Your task to perform on an android device: Open accessibility settings Image 0: 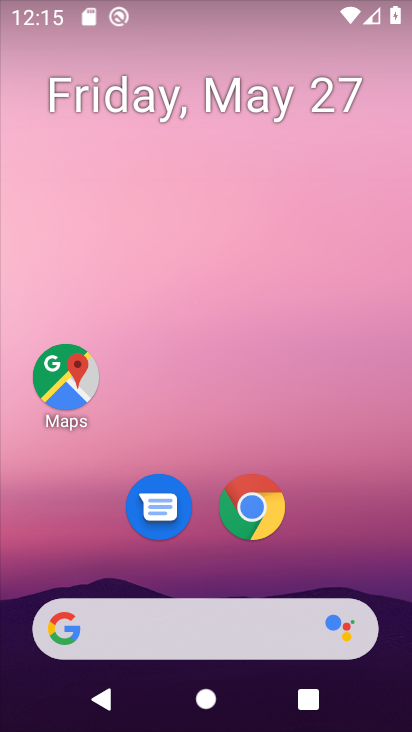
Step 0: drag from (97, 595) to (237, 78)
Your task to perform on an android device: Open accessibility settings Image 1: 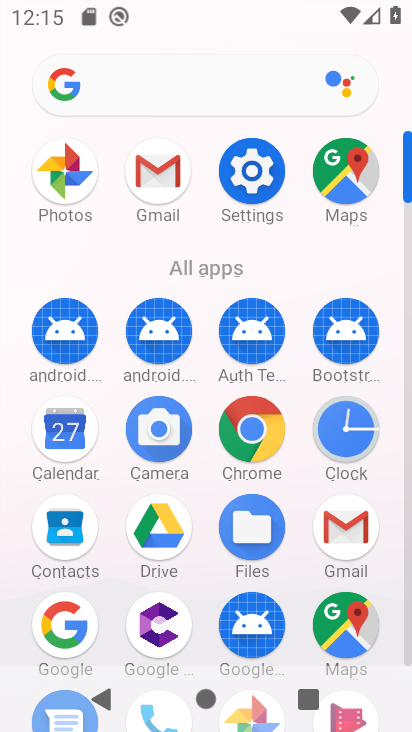
Step 1: drag from (181, 573) to (291, 185)
Your task to perform on an android device: Open accessibility settings Image 2: 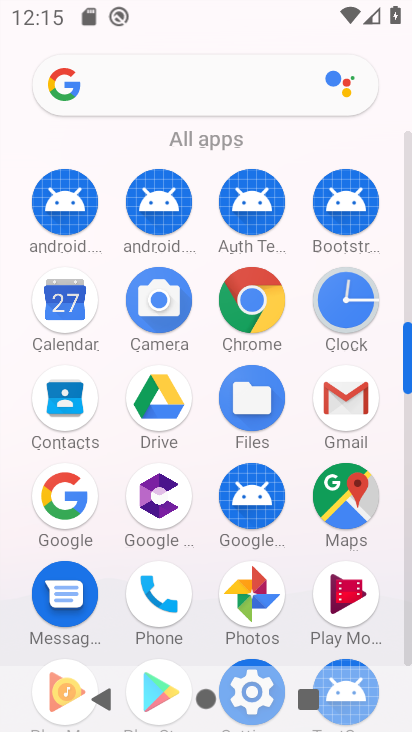
Step 2: drag from (219, 631) to (278, 380)
Your task to perform on an android device: Open accessibility settings Image 3: 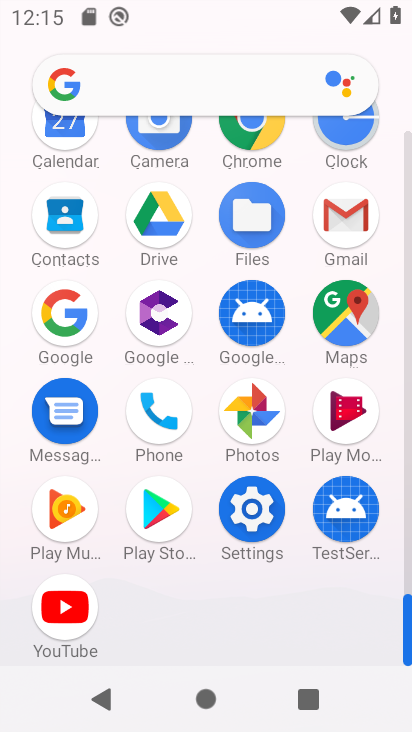
Step 3: click (254, 520)
Your task to perform on an android device: Open accessibility settings Image 4: 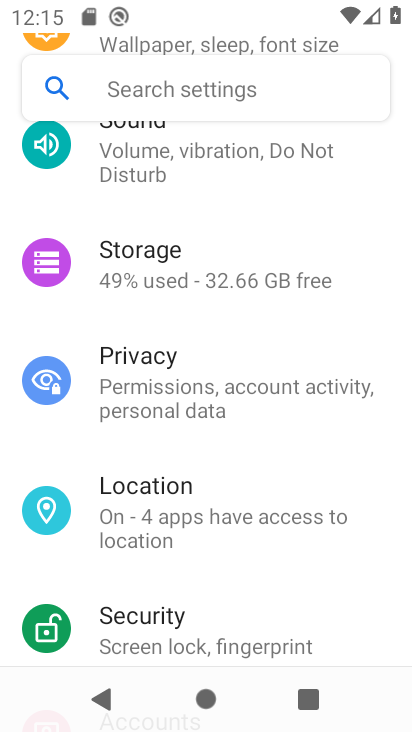
Step 4: drag from (131, 588) to (248, 130)
Your task to perform on an android device: Open accessibility settings Image 5: 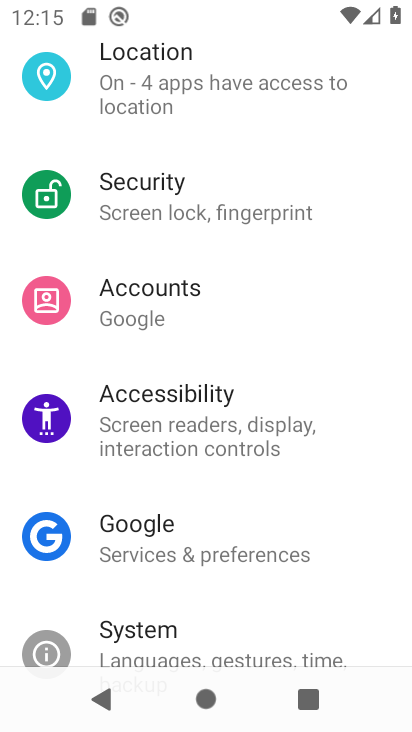
Step 5: click (217, 424)
Your task to perform on an android device: Open accessibility settings Image 6: 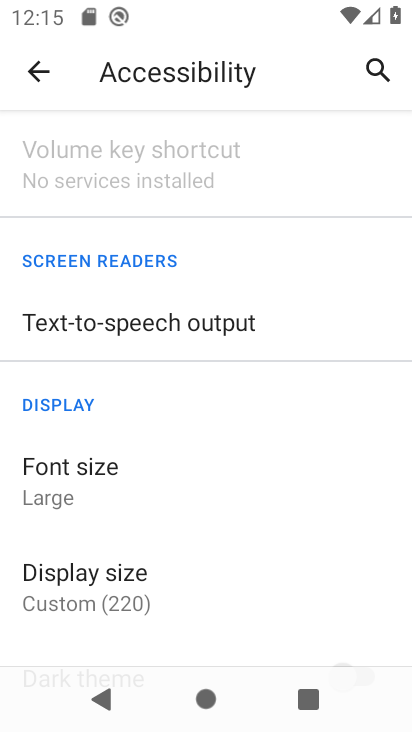
Step 6: task complete